Your task to perform on an android device: Search for "corsair k70" on newegg, select the first entry, add it to the cart, then select checkout. Image 0: 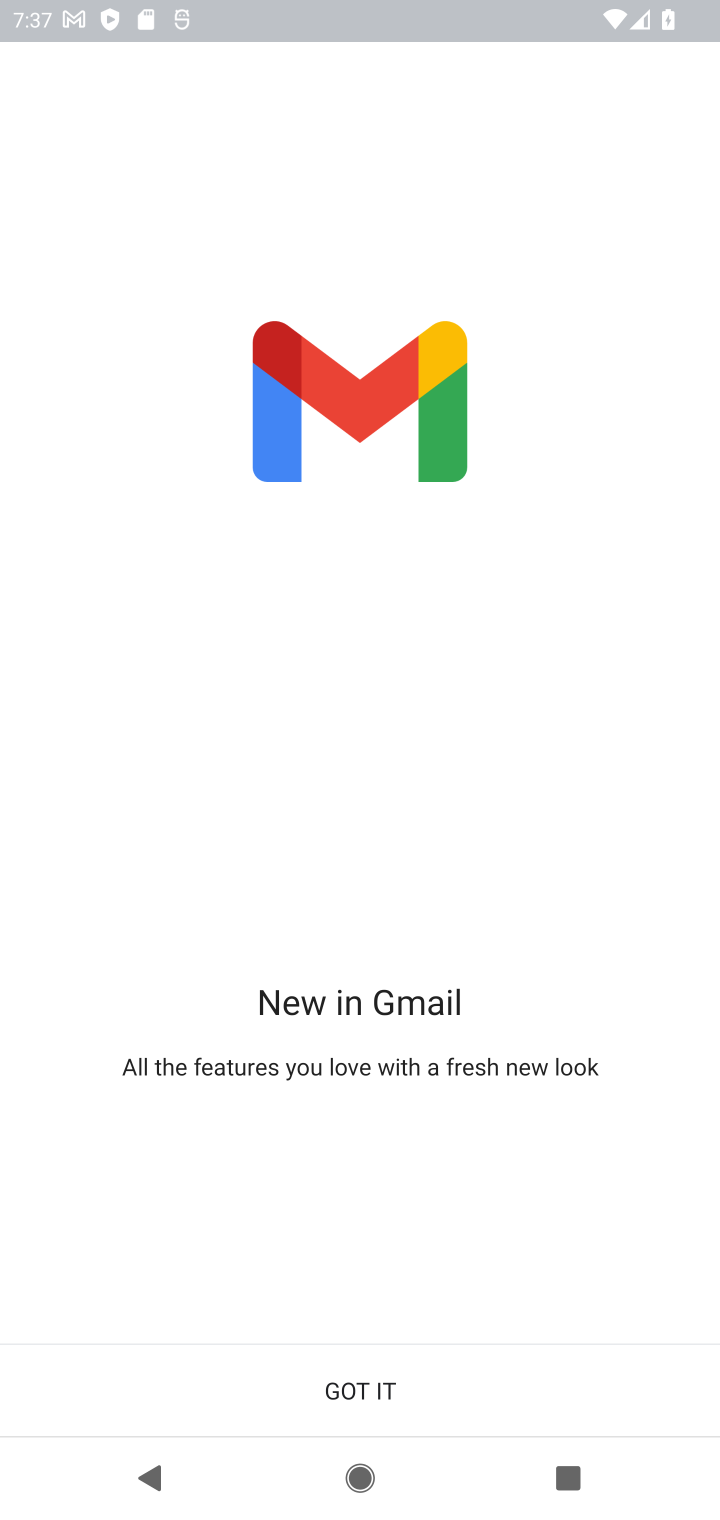
Step 0: press home button
Your task to perform on an android device: Search for "corsair k70" on newegg, select the first entry, add it to the cart, then select checkout. Image 1: 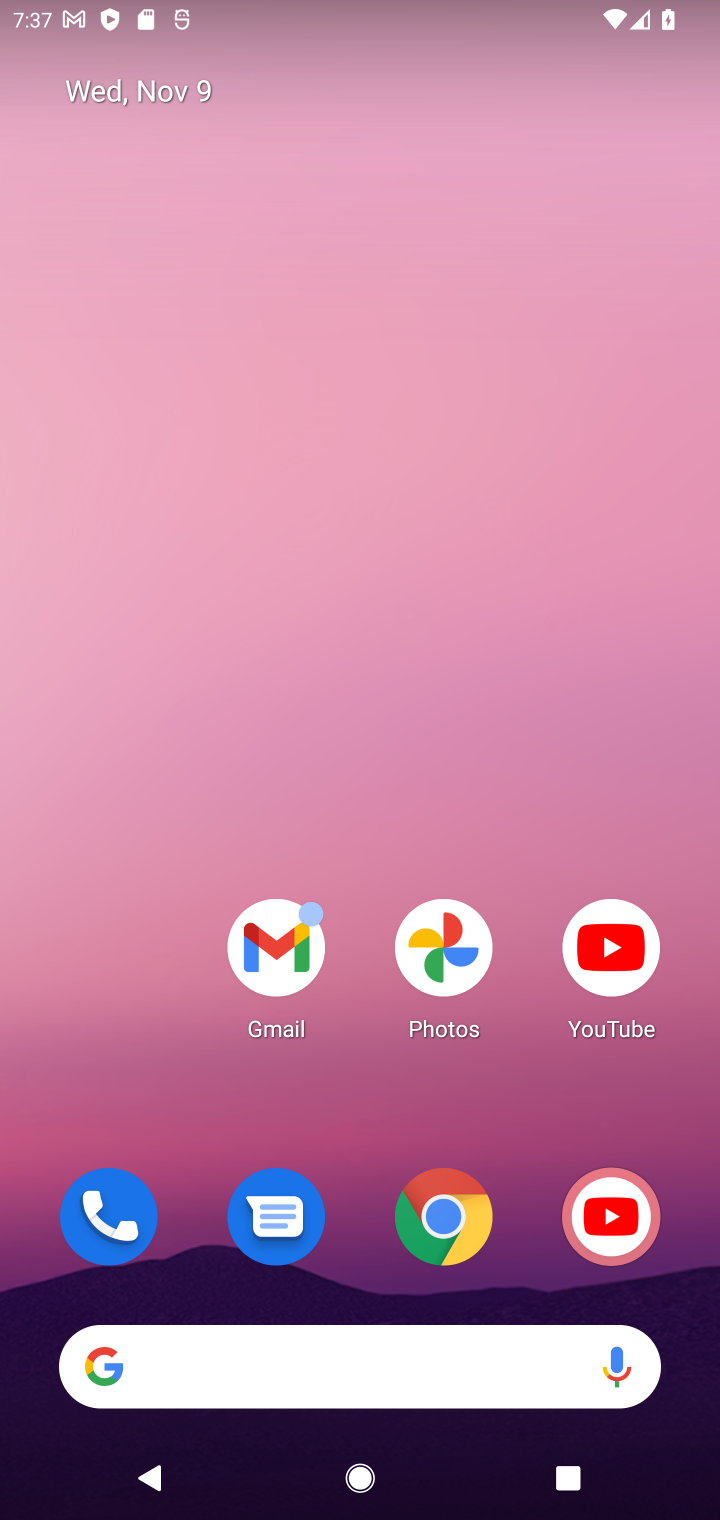
Step 1: drag from (428, 537) to (481, 10)
Your task to perform on an android device: Search for "corsair k70" on newegg, select the first entry, add it to the cart, then select checkout. Image 2: 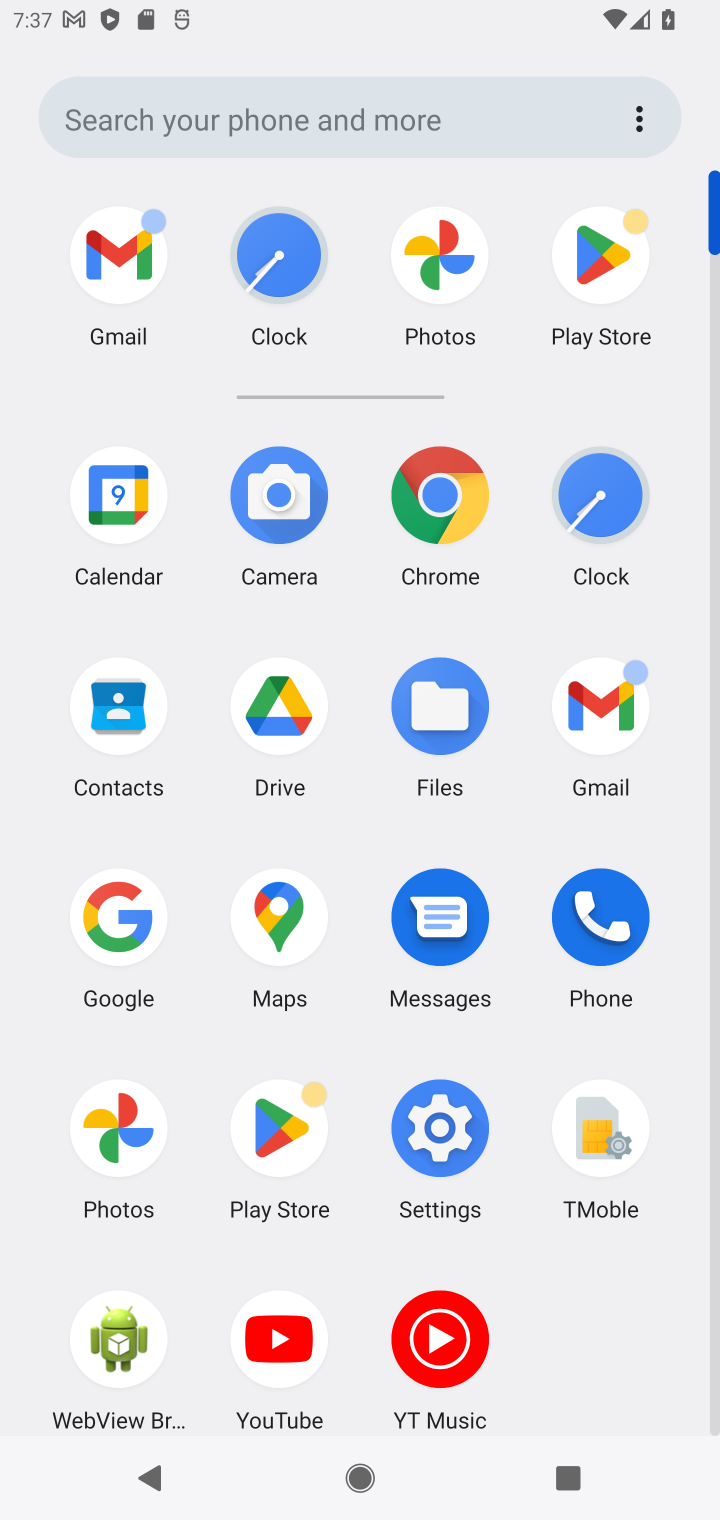
Step 2: click (446, 500)
Your task to perform on an android device: Search for "corsair k70" on newegg, select the first entry, add it to the cart, then select checkout. Image 3: 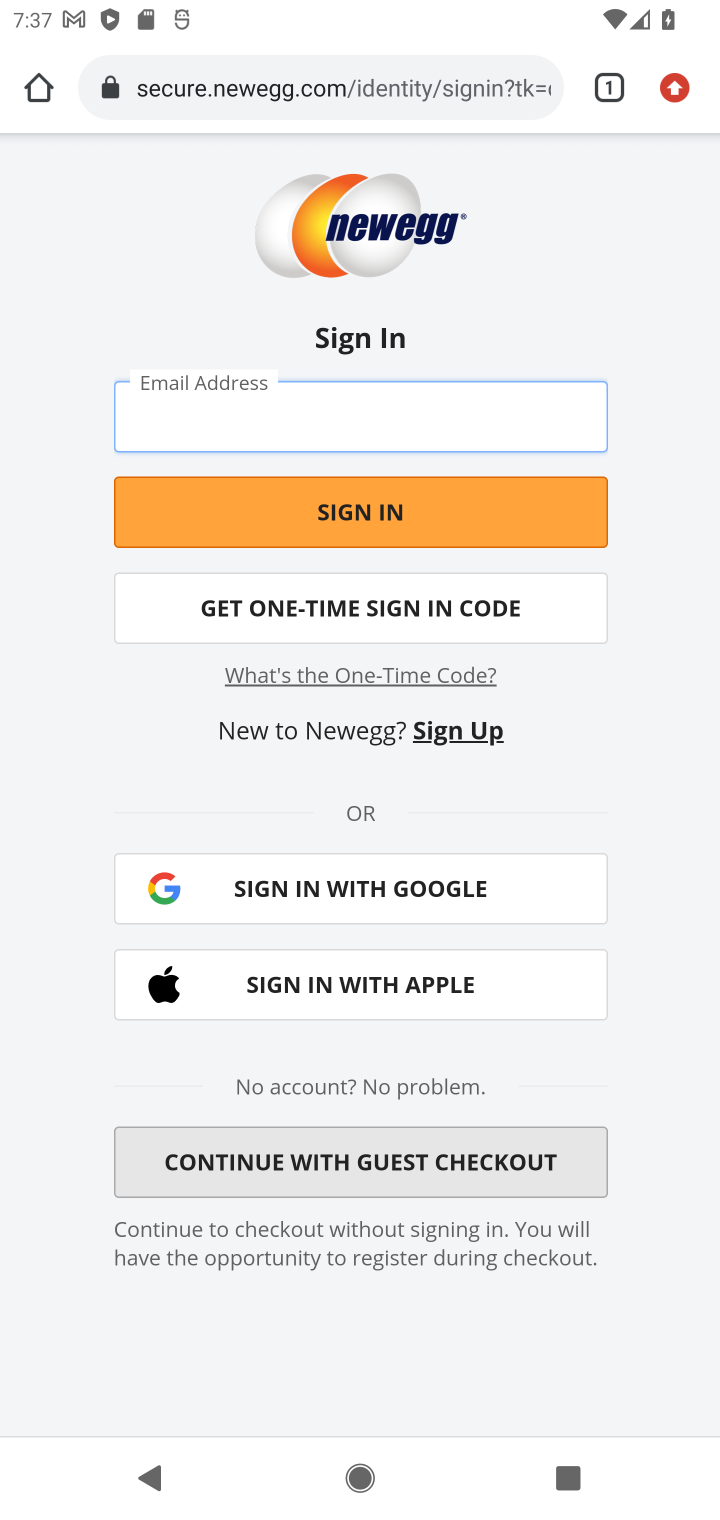
Step 3: click (347, 91)
Your task to perform on an android device: Search for "corsair k70" on newegg, select the first entry, add it to the cart, then select checkout. Image 4: 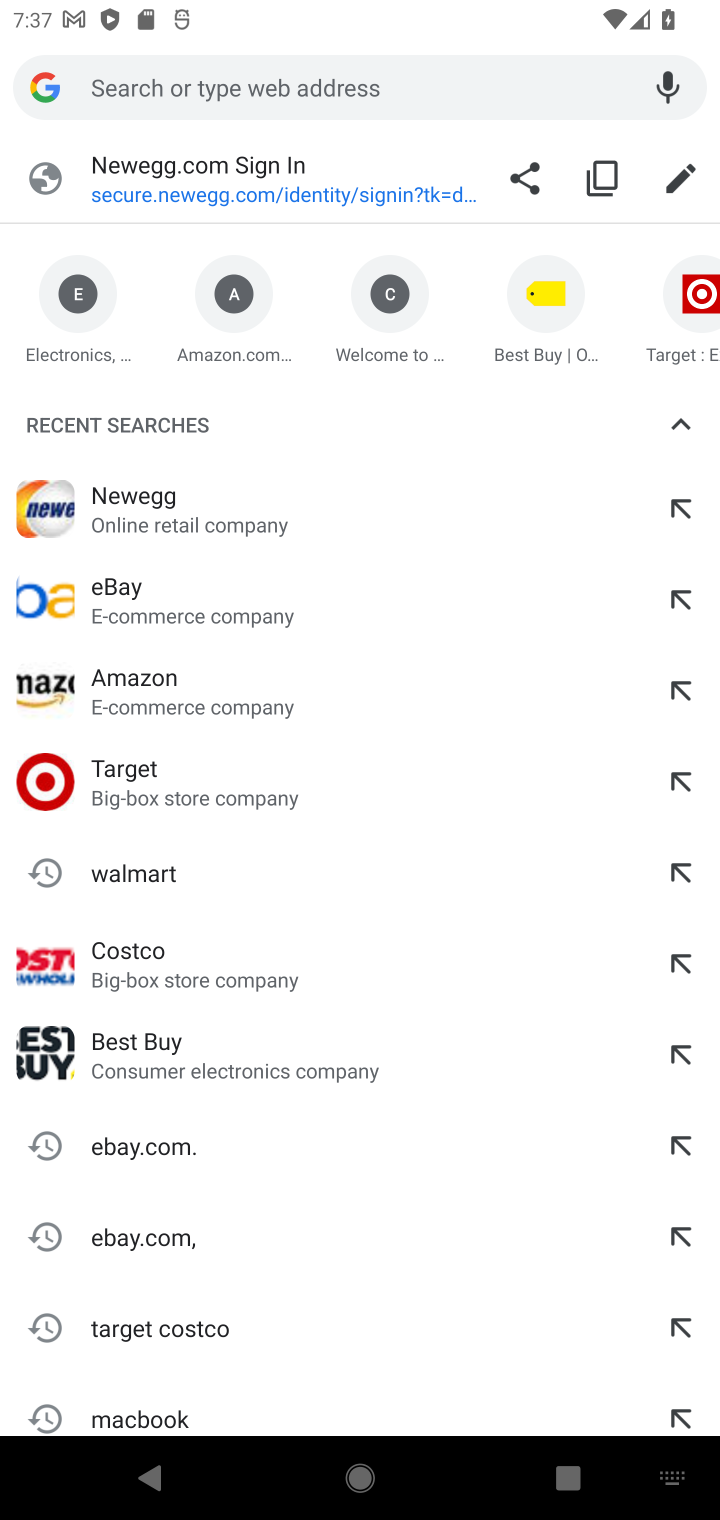
Step 4: type "newegg.com"
Your task to perform on an android device: Search for "corsair k70" on newegg, select the first entry, add it to the cart, then select checkout. Image 5: 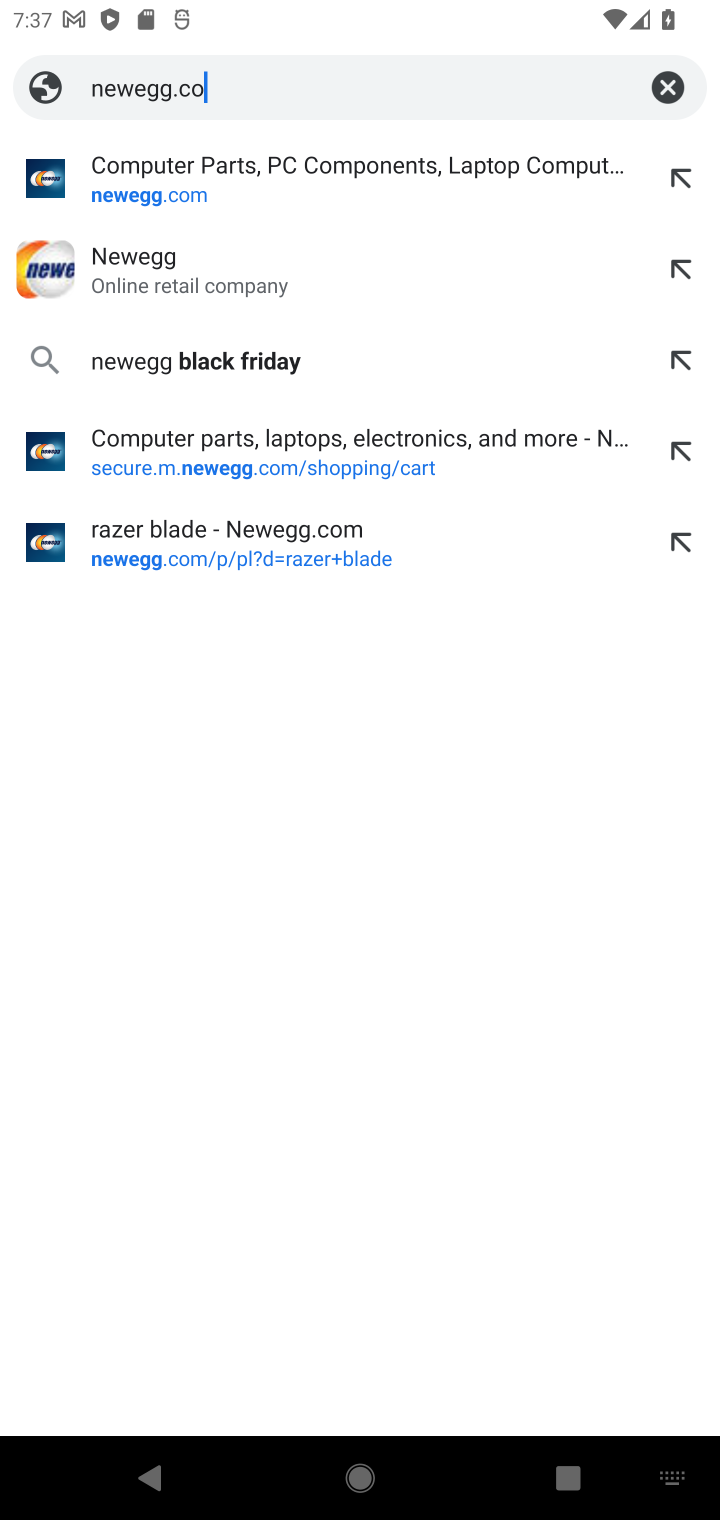
Step 5: press enter
Your task to perform on an android device: Search for "corsair k70" on newegg, select the first entry, add it to the cart, then select checkout. Image 6: 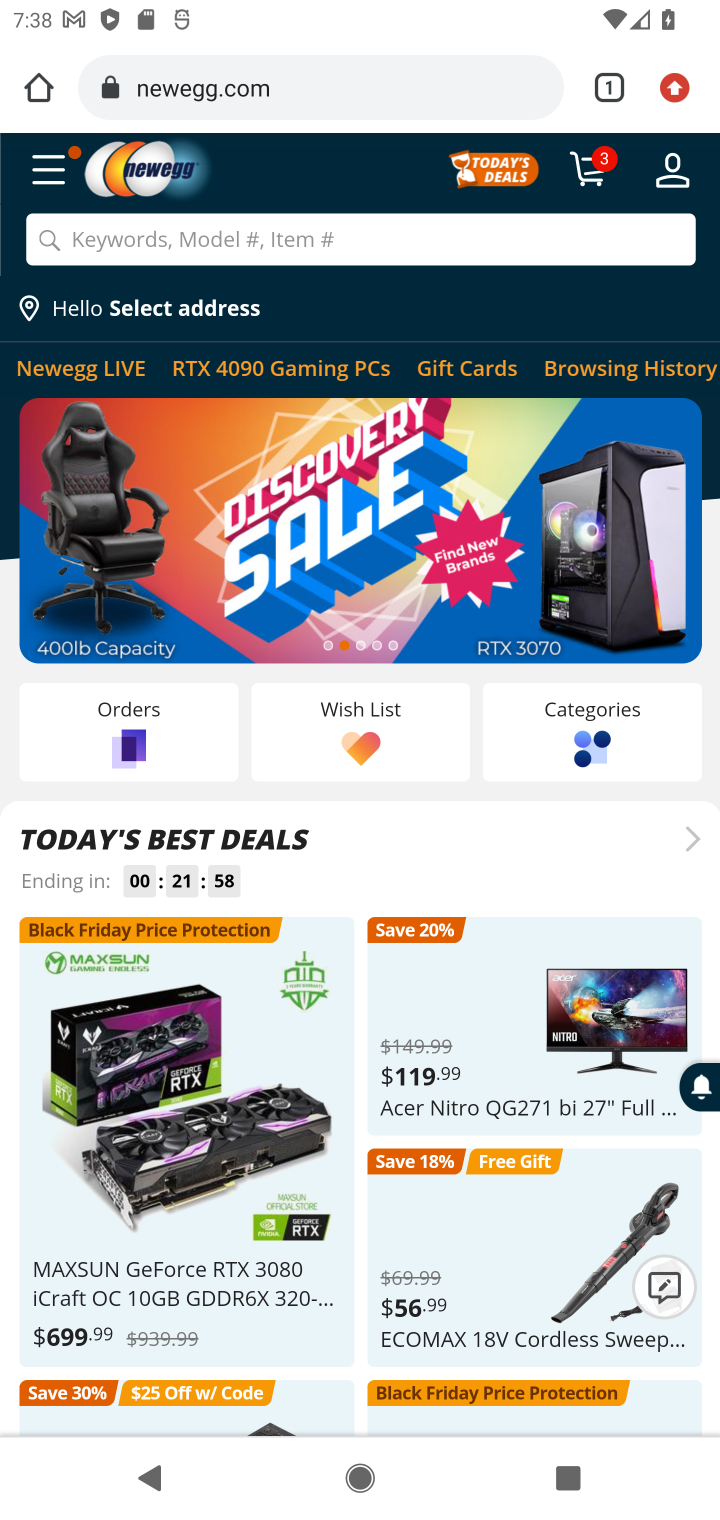
Step 6: click (446, 230)
Your task to perform on an android device: Search for "corsair k70" on newegg, select the first entry, add it to the cart, then select checkout. Image 7: 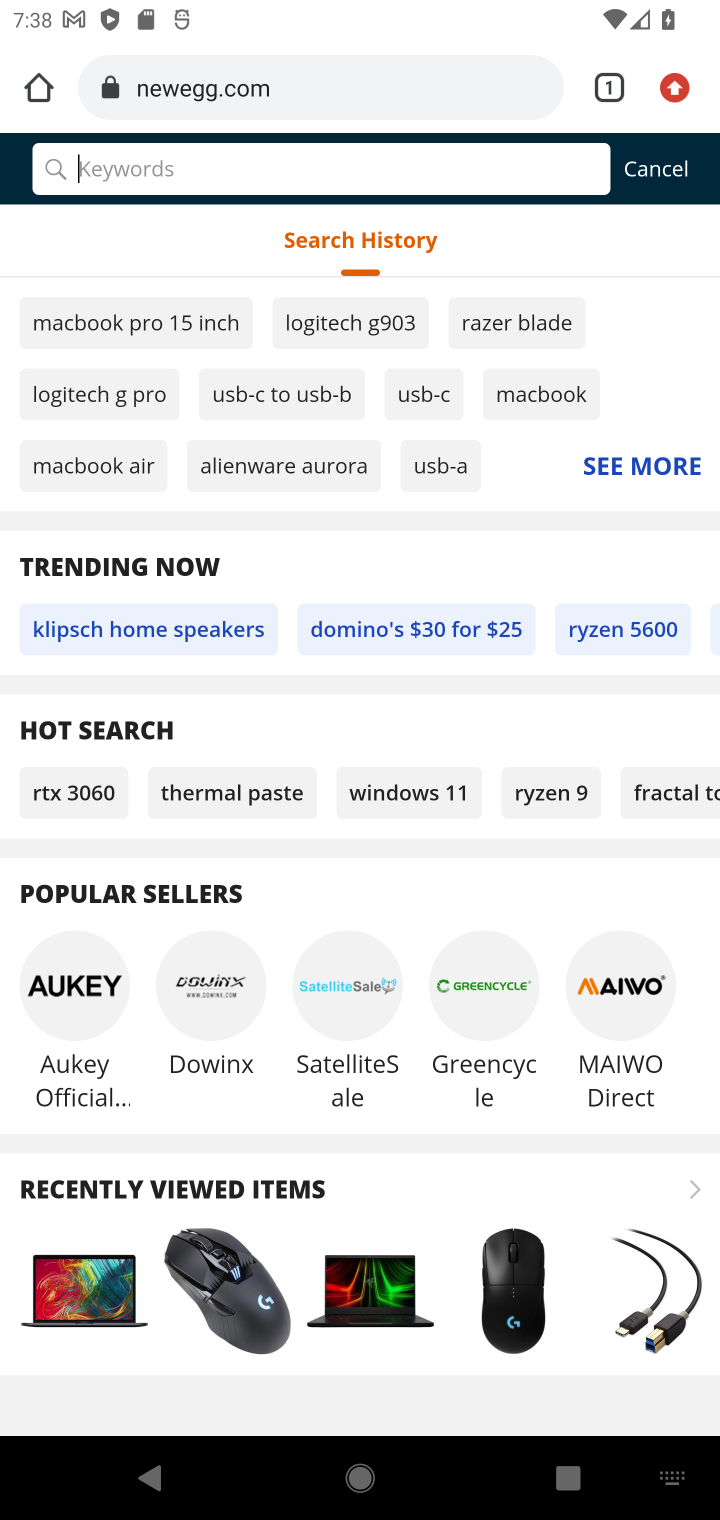
Step 7: type "corsair k70"
Your task to perform on an android device: Search for "corsair k70" on newegg, select the first entry, add it to the cart, then select checkout. Image 8: 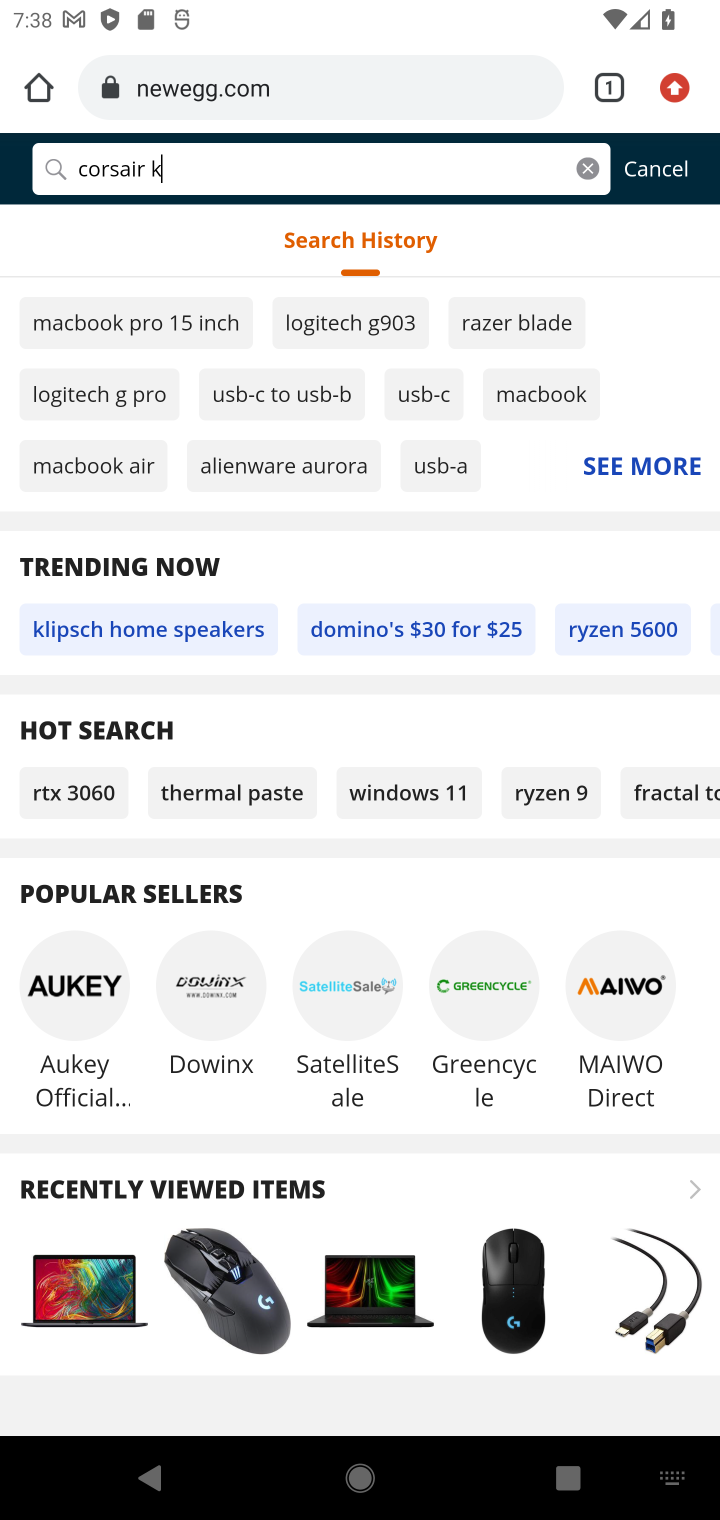
Step 8: press enter
Your task to perform on an android device: Search for "corsair k70" on newegg, select the first entry, add it to the cart, then select checkout. Image 9: 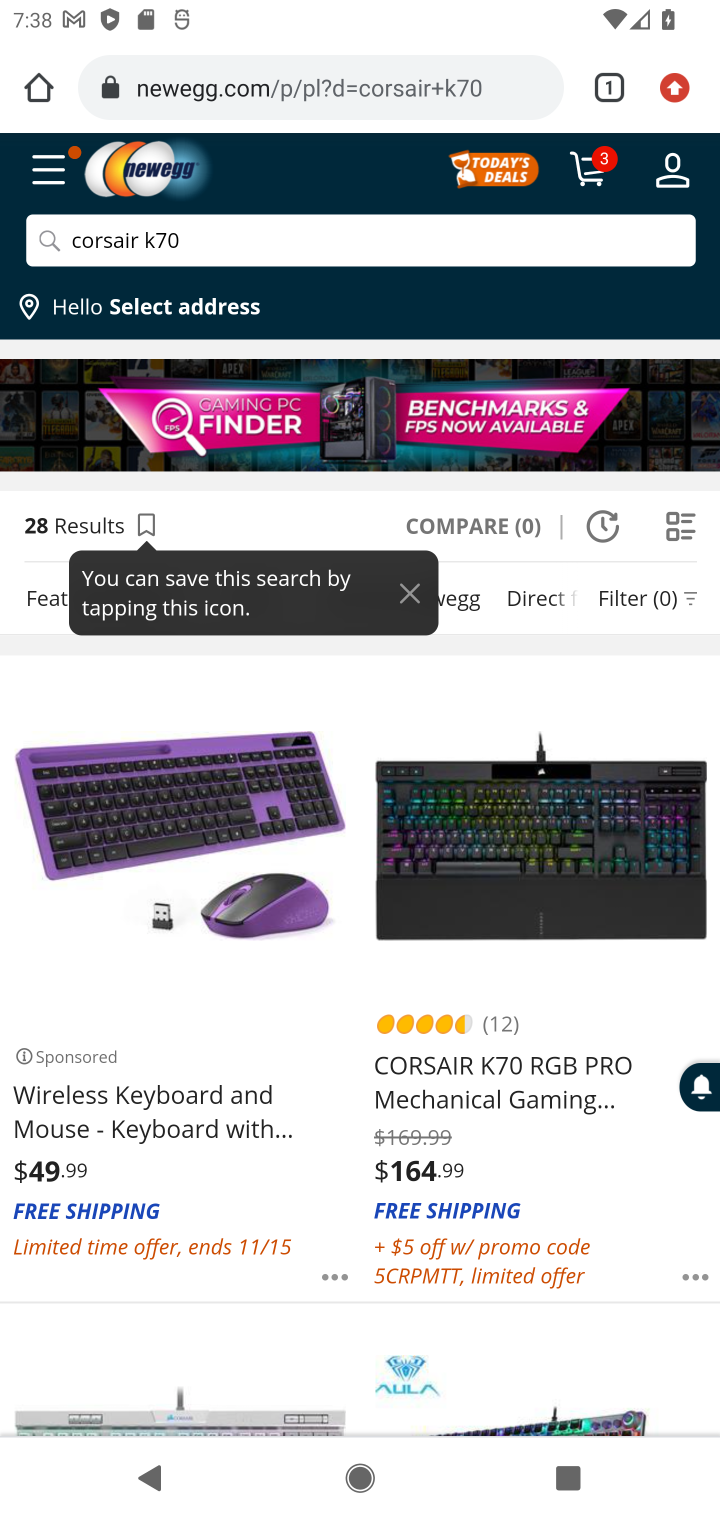
Step 9: drag from (355, 1149) to (358, 578)
Your task to perform on an android device: Search for "corsair k70" on newegg, select the first entry, add it to the cart, then select checkout. Image 10: 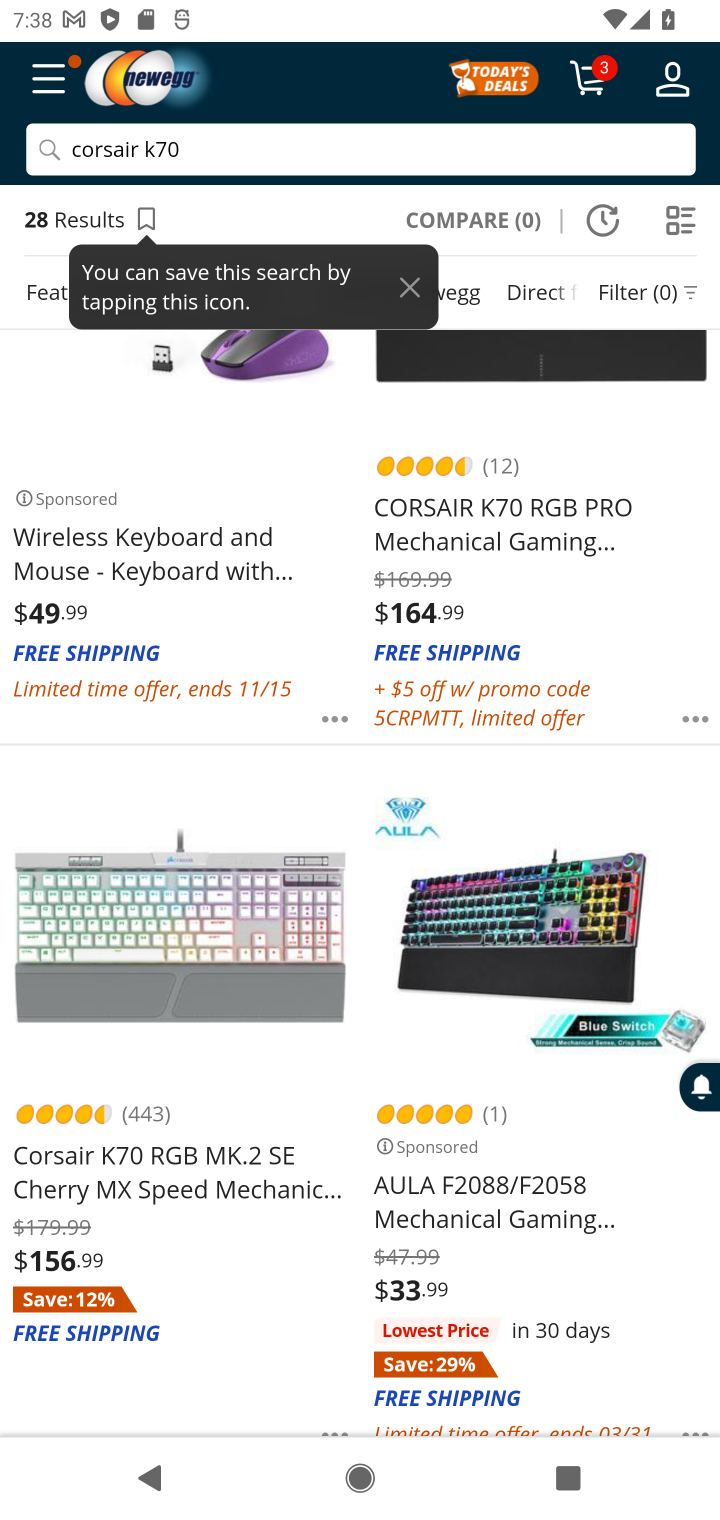
Step 10: click (516, 529)
Your task to perform on an android device: Search for "corsair k70" on newegg, select the first entry, add it to the cart, then select checkout. Image 11: 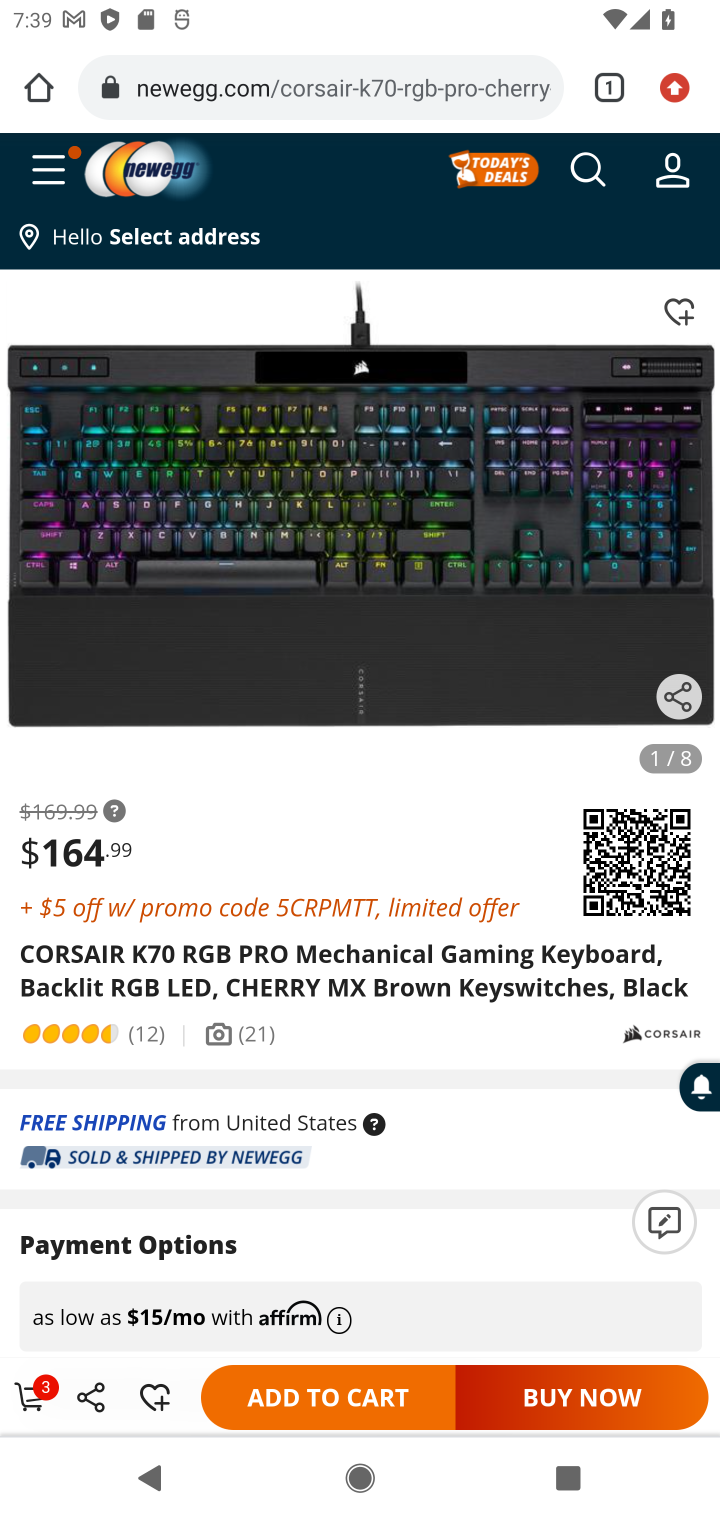
Step 11: click (282, 1409)
Your task to perform on an android device: Search for "corsair k70" on newegg, select the first entry, add it to the cart, then select checkout. Image 12: 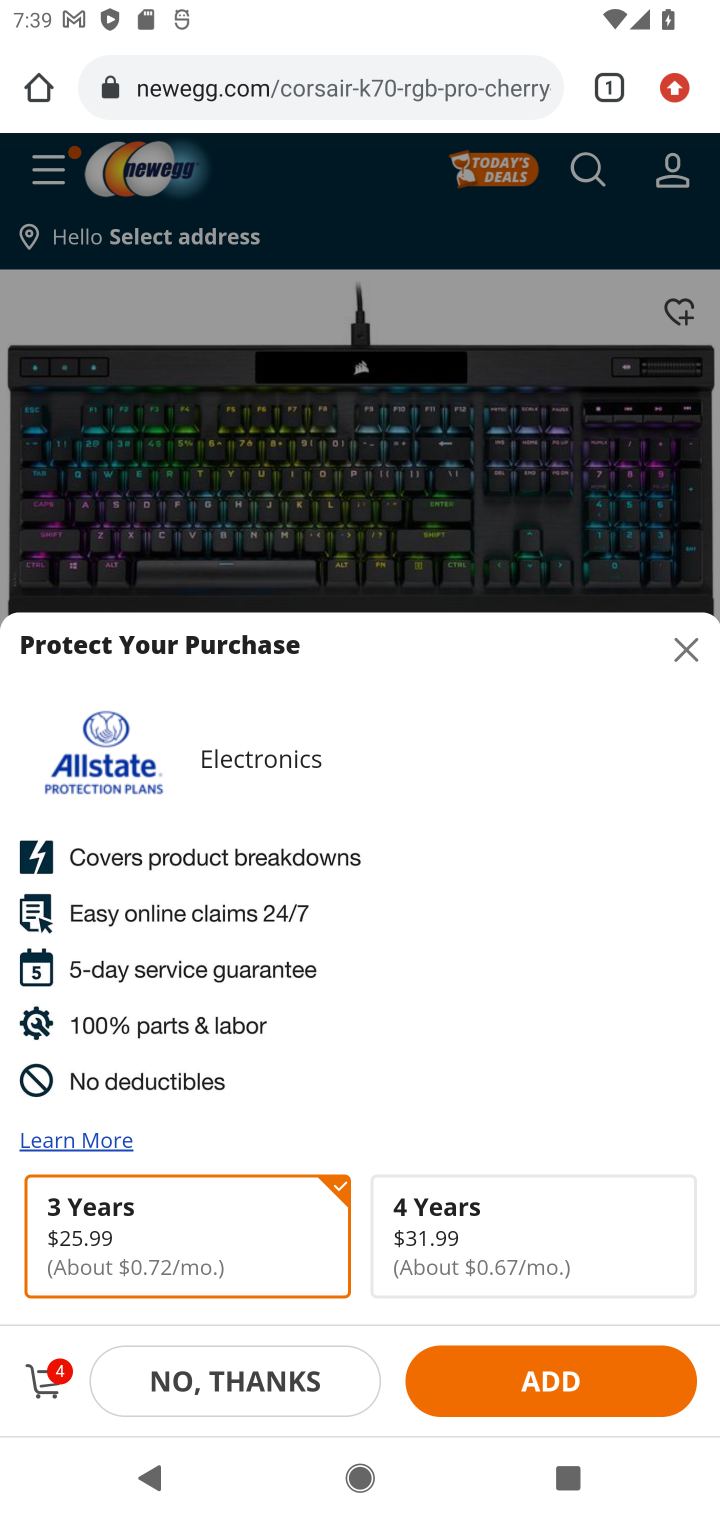
Step 12: click (67, 1387)
Your task to perform on an android device: Search for "corsair k70" on newegg, select the first entry, add it to the cart, then select checkout. Image 13: 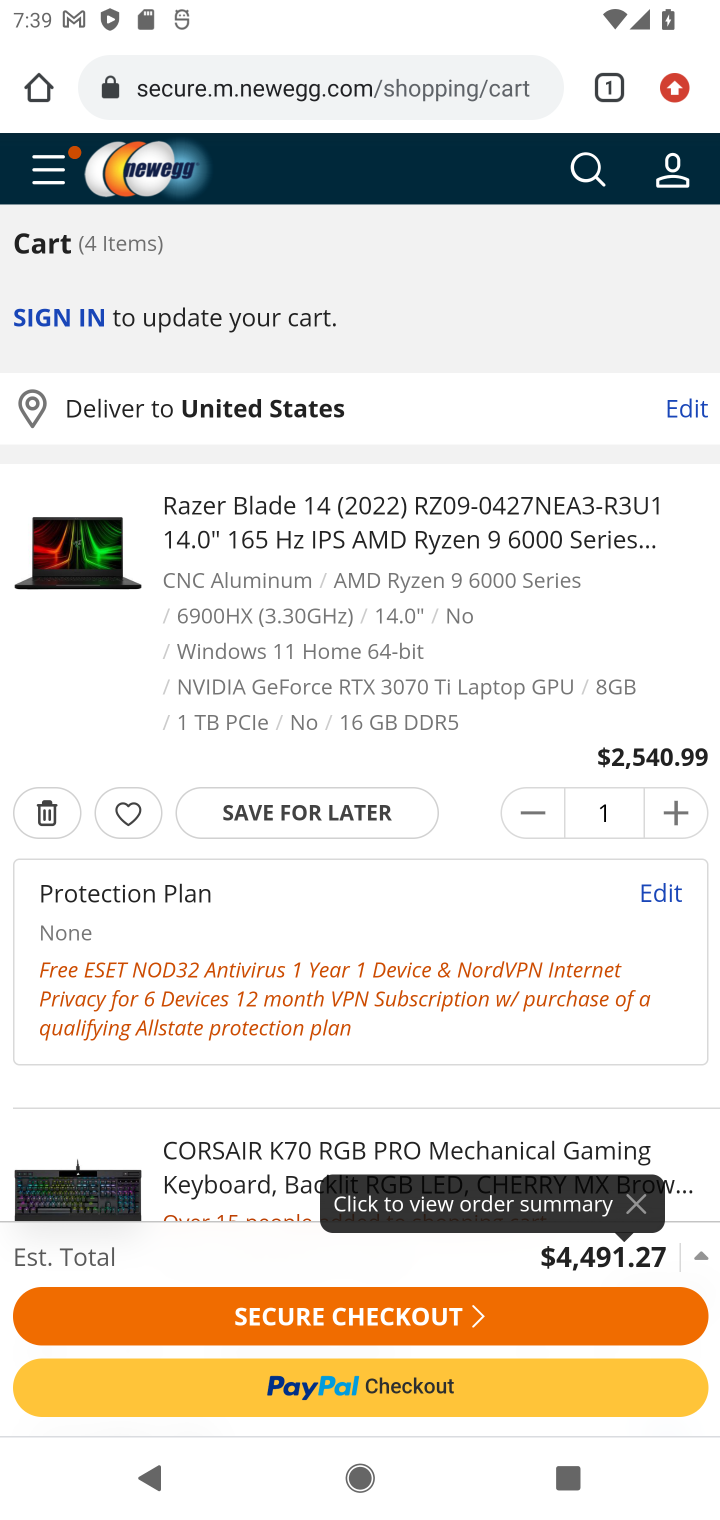
Step 13: click (485, 1322)
Your task to perform on an android device: Search for "corsair k70" on newegg, select the first entry, add it to the cart, then select checkout. Image 14: 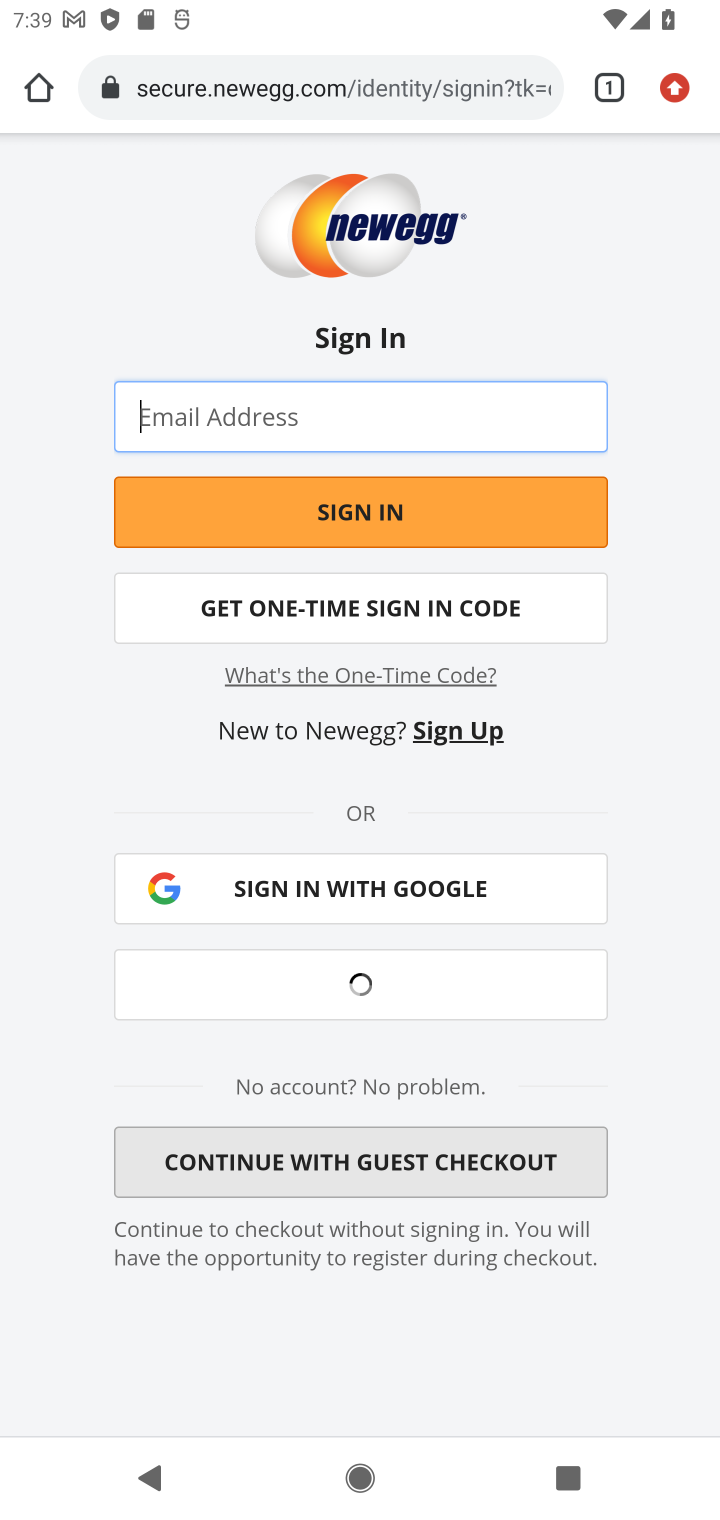
Step 14: task complete